Your task to perform on an android device: turn off data saver in the chrome app Image 0: 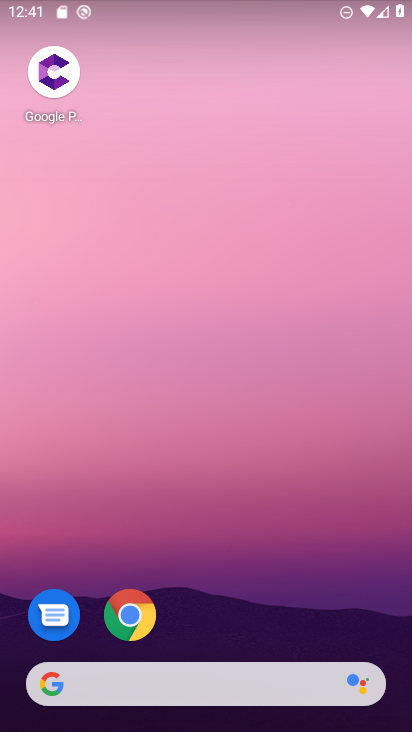
Step 0: drag from (246, 597) to (145, 64)
Your task to perform on an android device: turn off data saver in the chrome app Image 1: 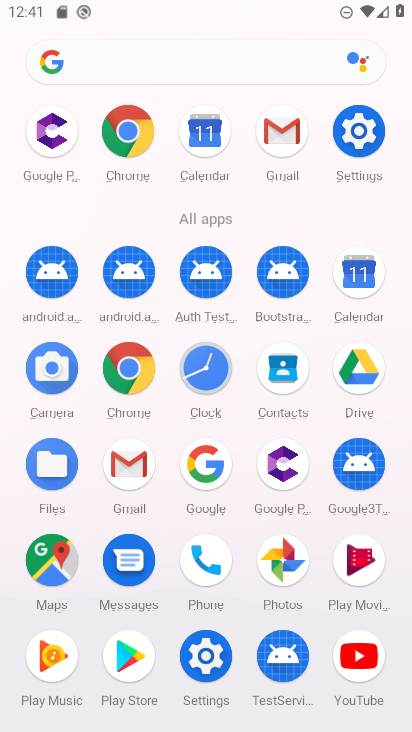
Step 1: click (94, 127)
Your task to perform on an android device: turn off data saver in the chrome app Image 2: 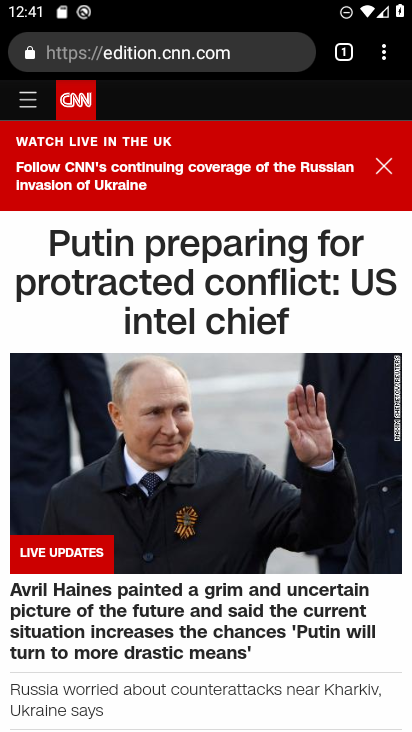
Step 2: drag from (391, 46) to (283, 597)
Your task to perform on an android device: turn off data saver in the chrome app Image 3: 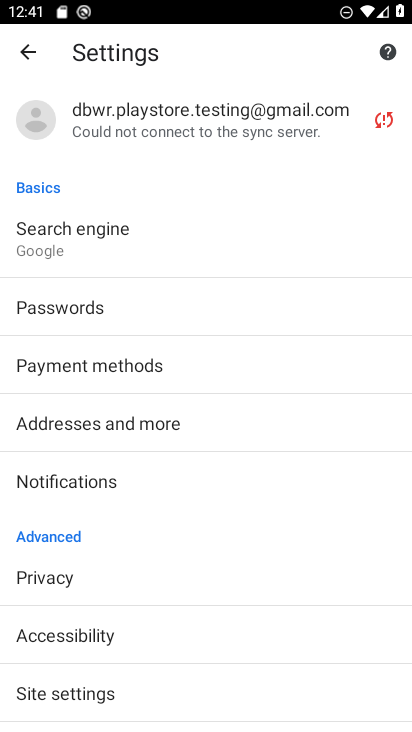
Step 3: drag from (277, 591) to (187, 289)
Your task to perform on an android device: turn off data saver in the chrome app Image 4: 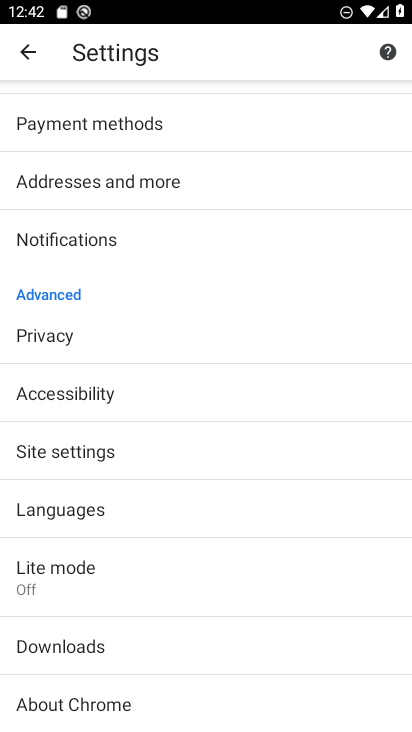
Step 4: click (67, 568)
Your task to perform on an android device: turn off data saver in the chrome app Image 5: 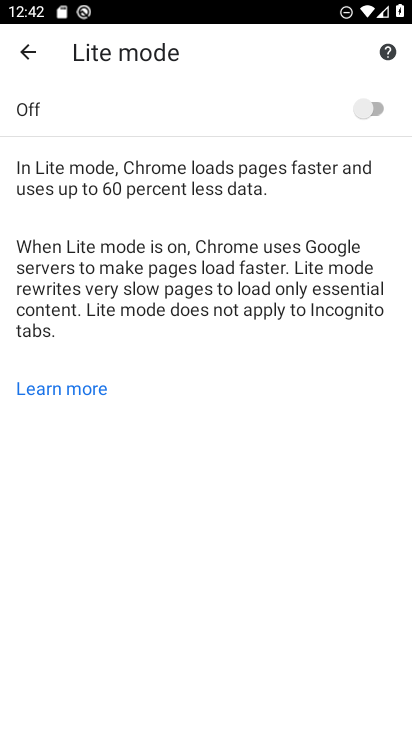
Step 5: task complete